Your task to perform on an android device: see tabs open on other devices in the chrome app Image 0: 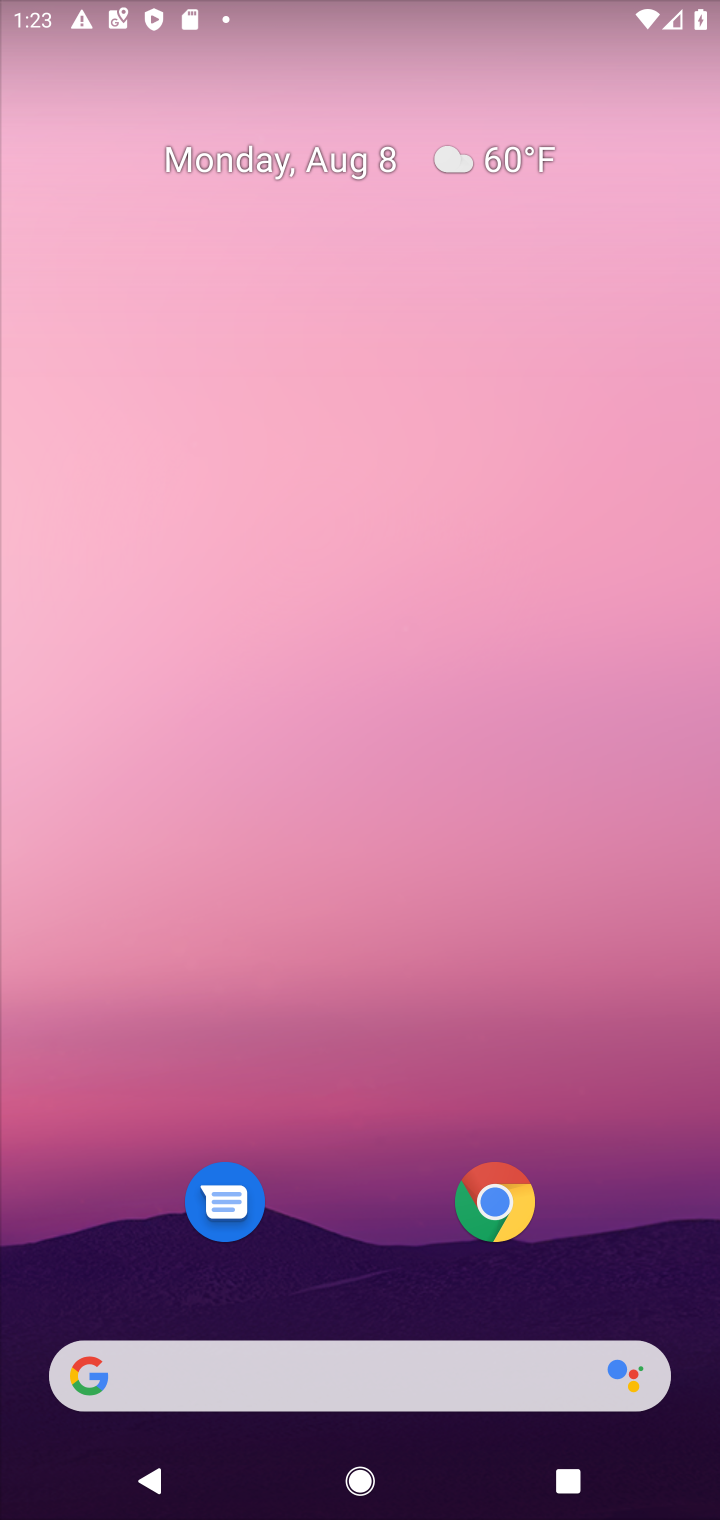
Step 0: press home button
Your task to perform on an android device: see tabs open on other devices in the chrome app Image 1: 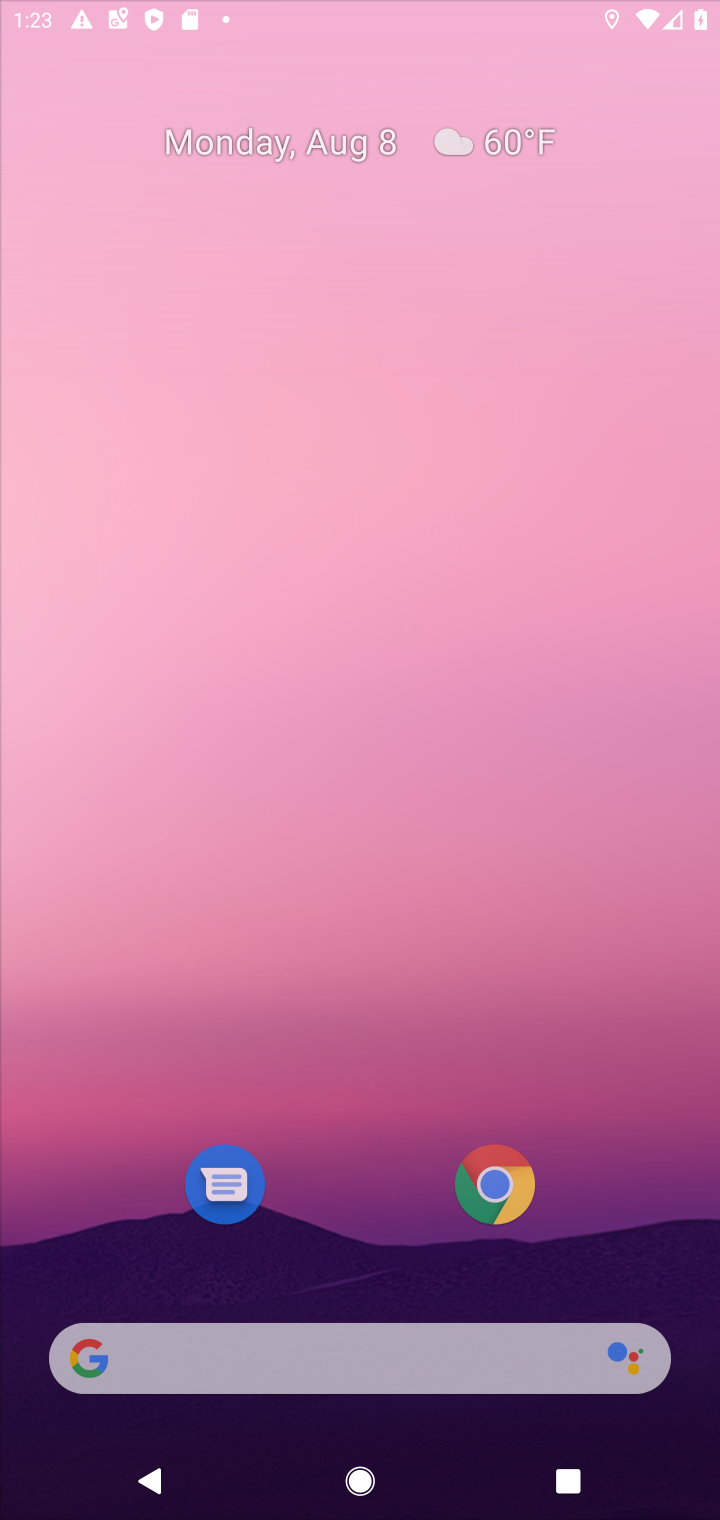
Step 1: press home button
Your task to perform on an android device: see tabs open on other devices in the chrome app Image 2: 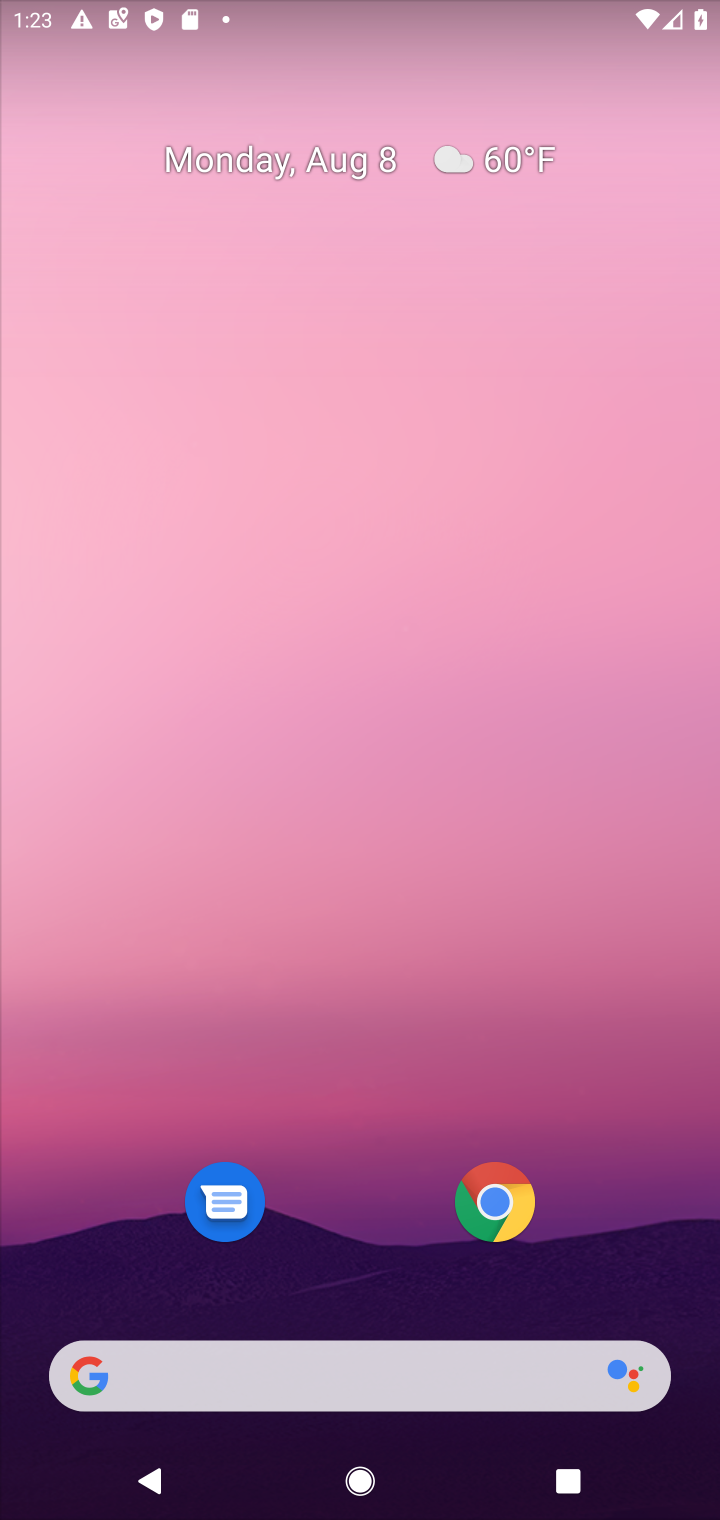
Step 2: drag from (618, 966) to (674, 266)
Your task to perform on an android device: see tabs open on other devices in the chrome app Image 3: 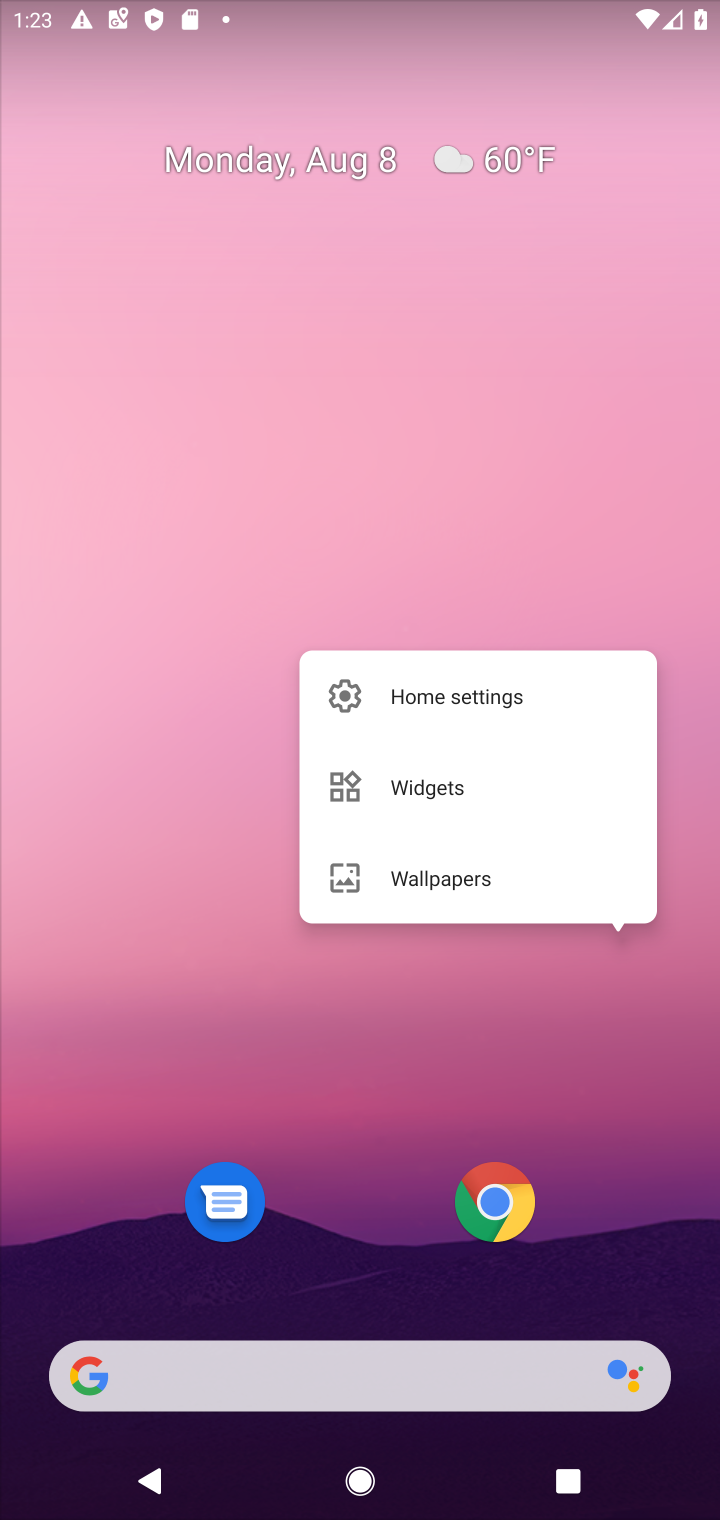
Step 3: click (598, 1033)
Your task to perform on an android device: see tabs open on other devices in the chrome app Image 4: 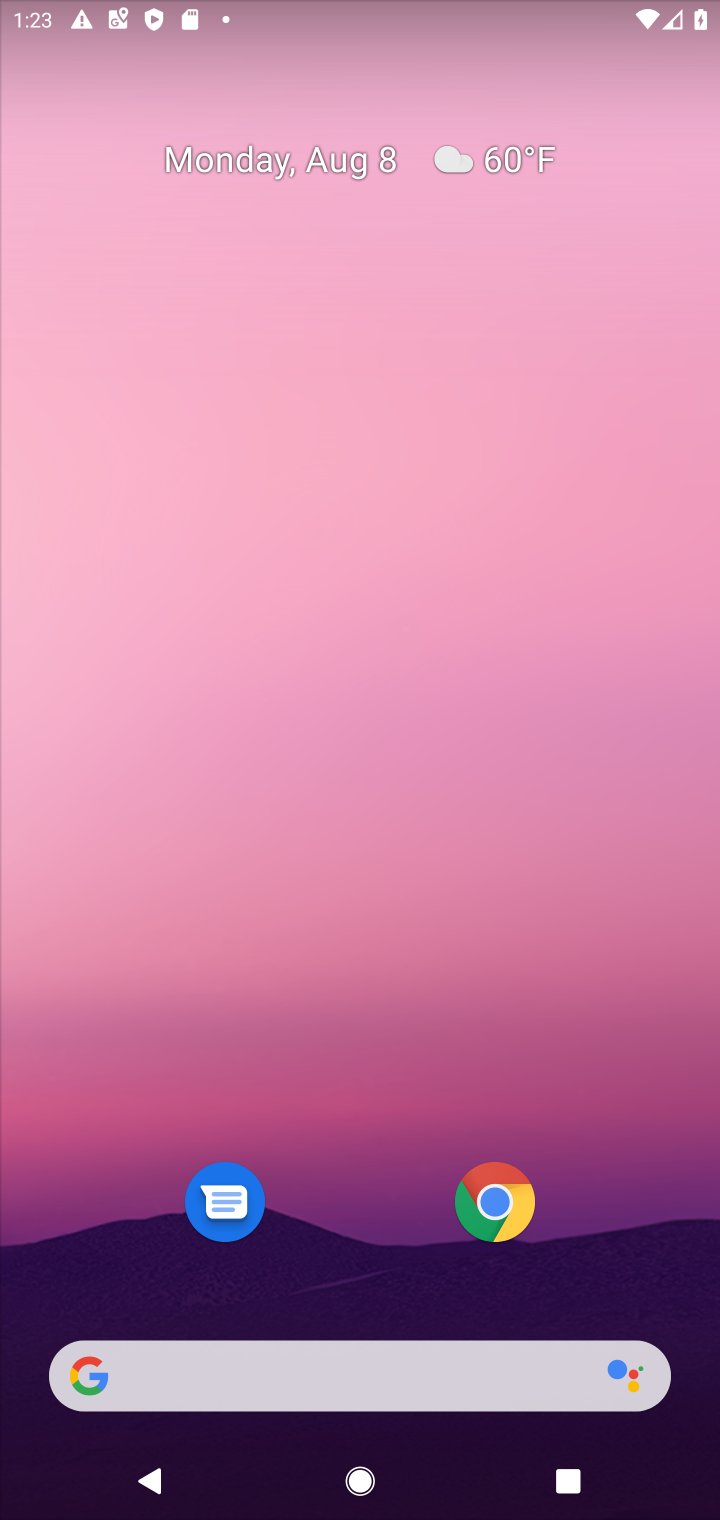
Step 4: drag from (595, 1253) to (633, 135)
Your task to perform on an android device: see tabs open on other devices in the chrome app Image 5: 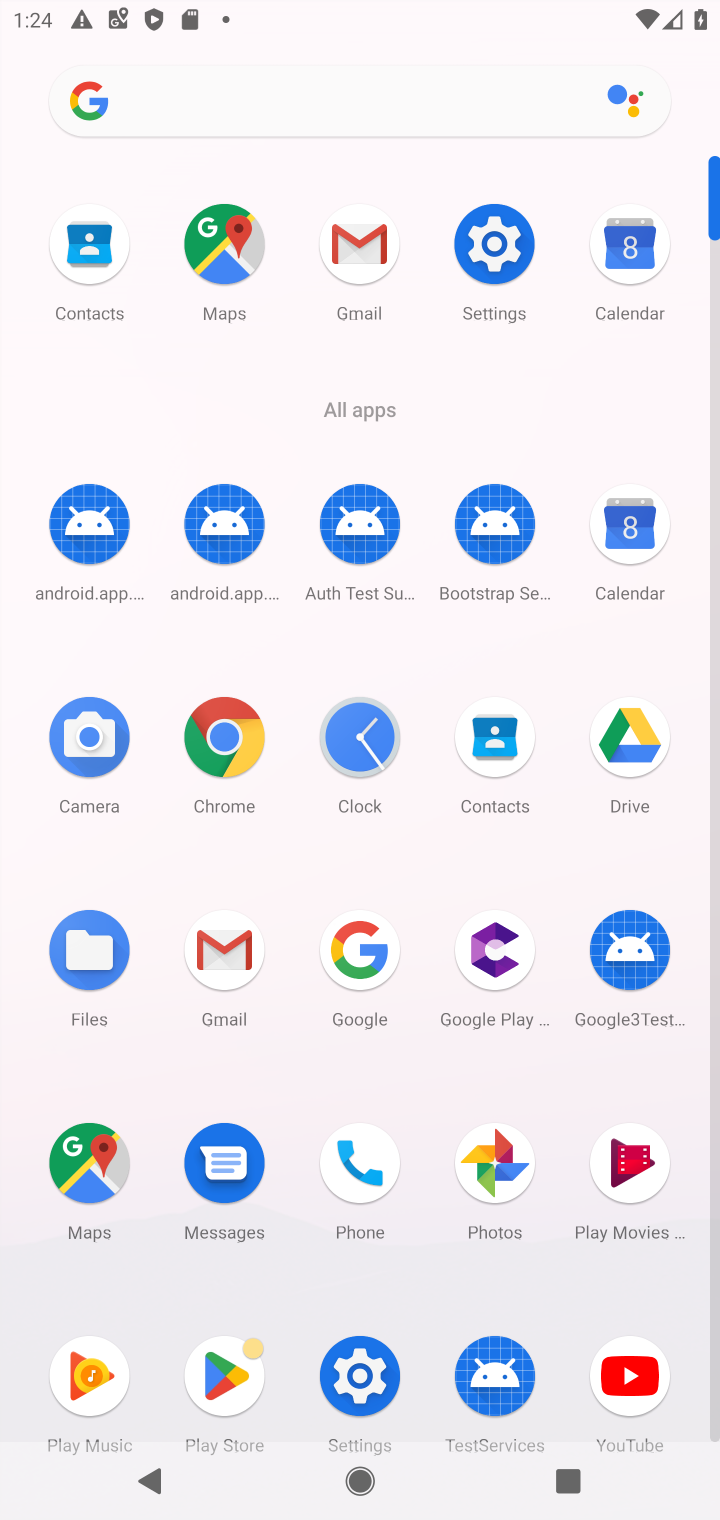
Step 5: click (219, 751)
Your task to perform on an android device: see tabs open on other devices in the chrome app Image 6: 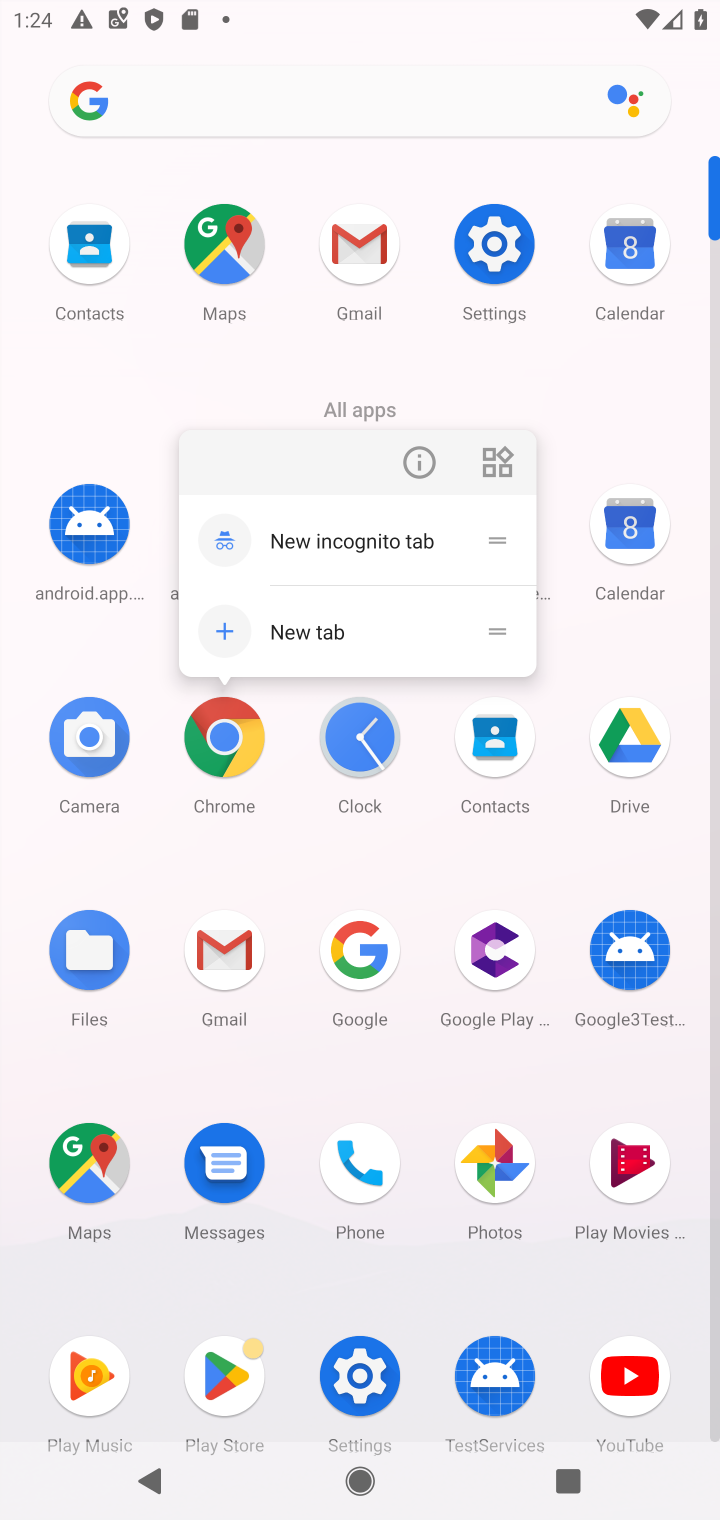
Step 6: click (219, 751)
Your task to perform on an android device: see tabs open on other devices in the chrome app Image 7: 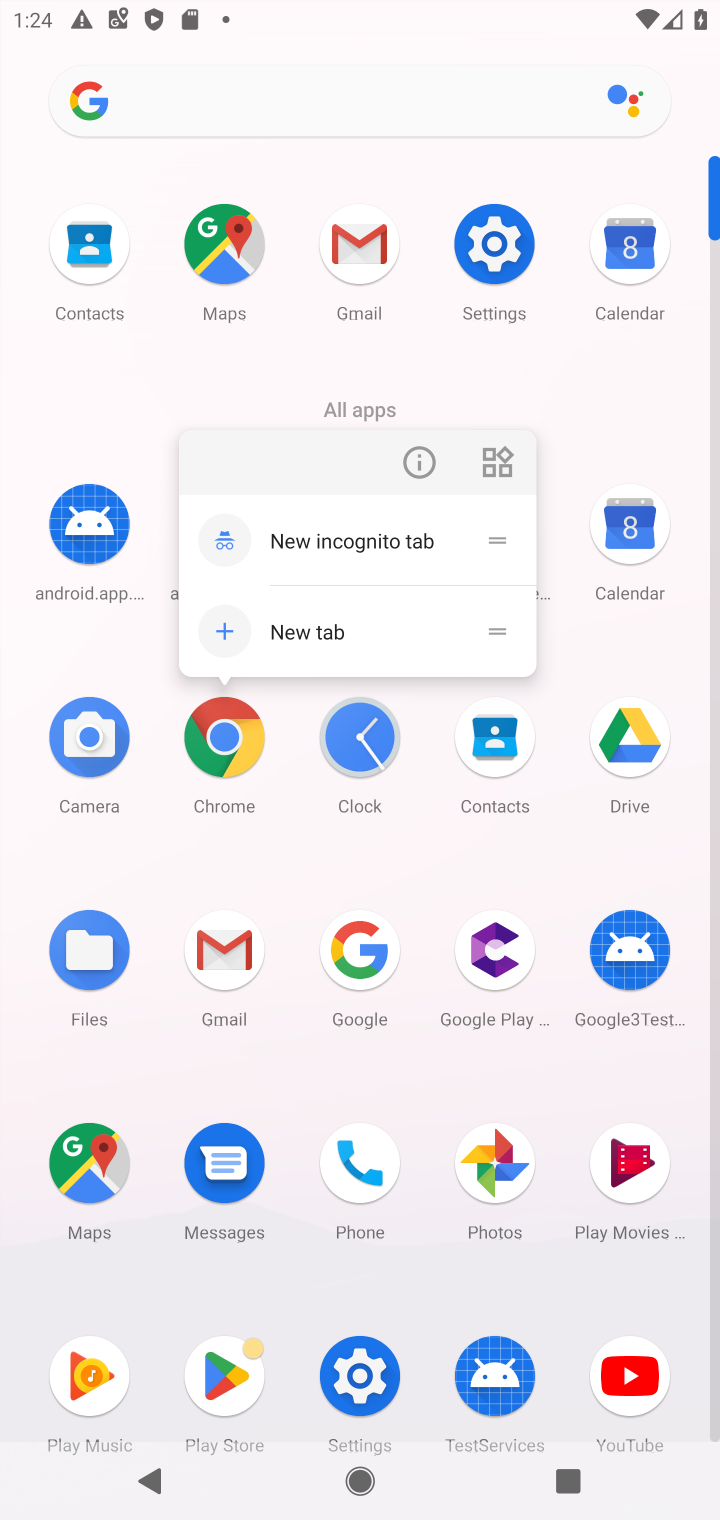
Step 7: click (224, 717)
Your task to perform on an android device: see tabs open on other devices in the chrome app Image 8: 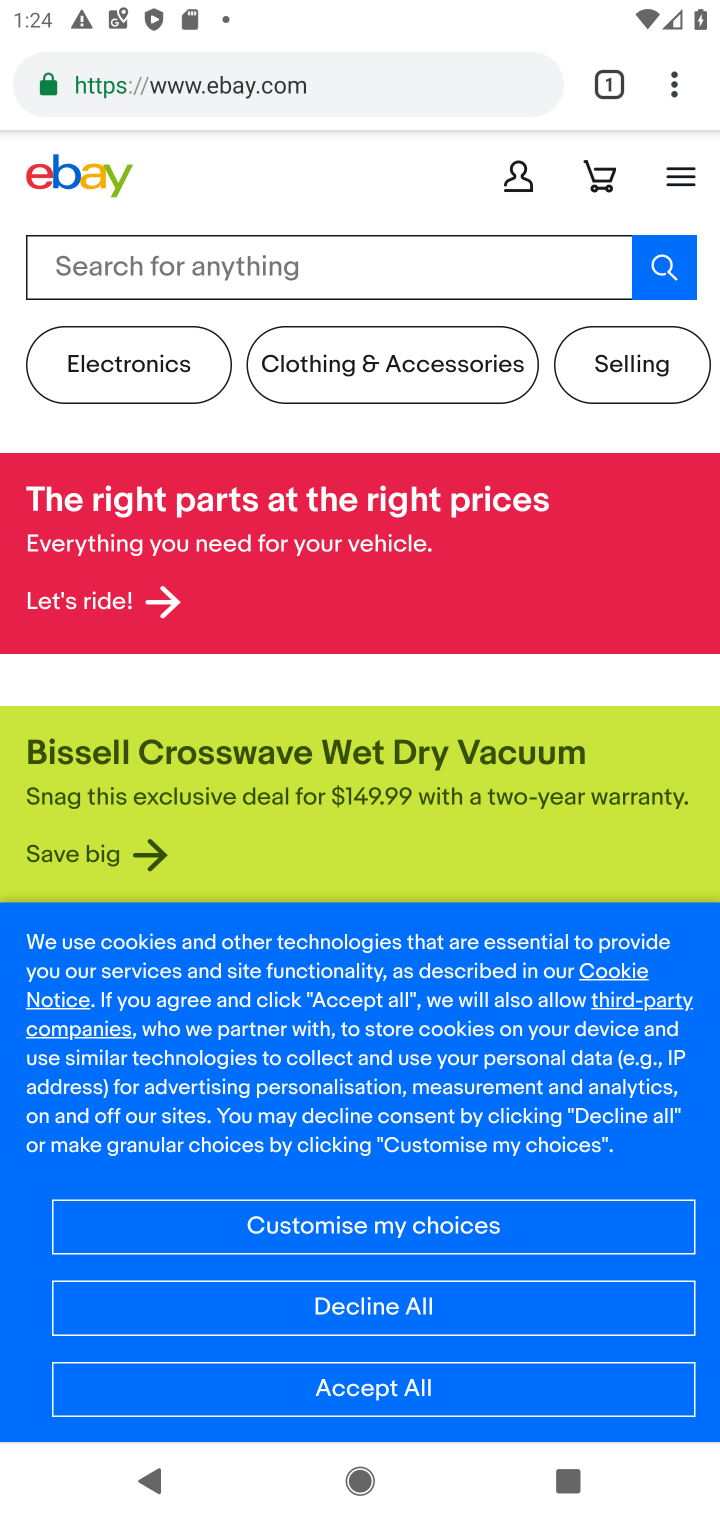
Step 8: click (677, 89)
Your task to perform on an android device: see tabs open on other devices in the chrome app Image 9: 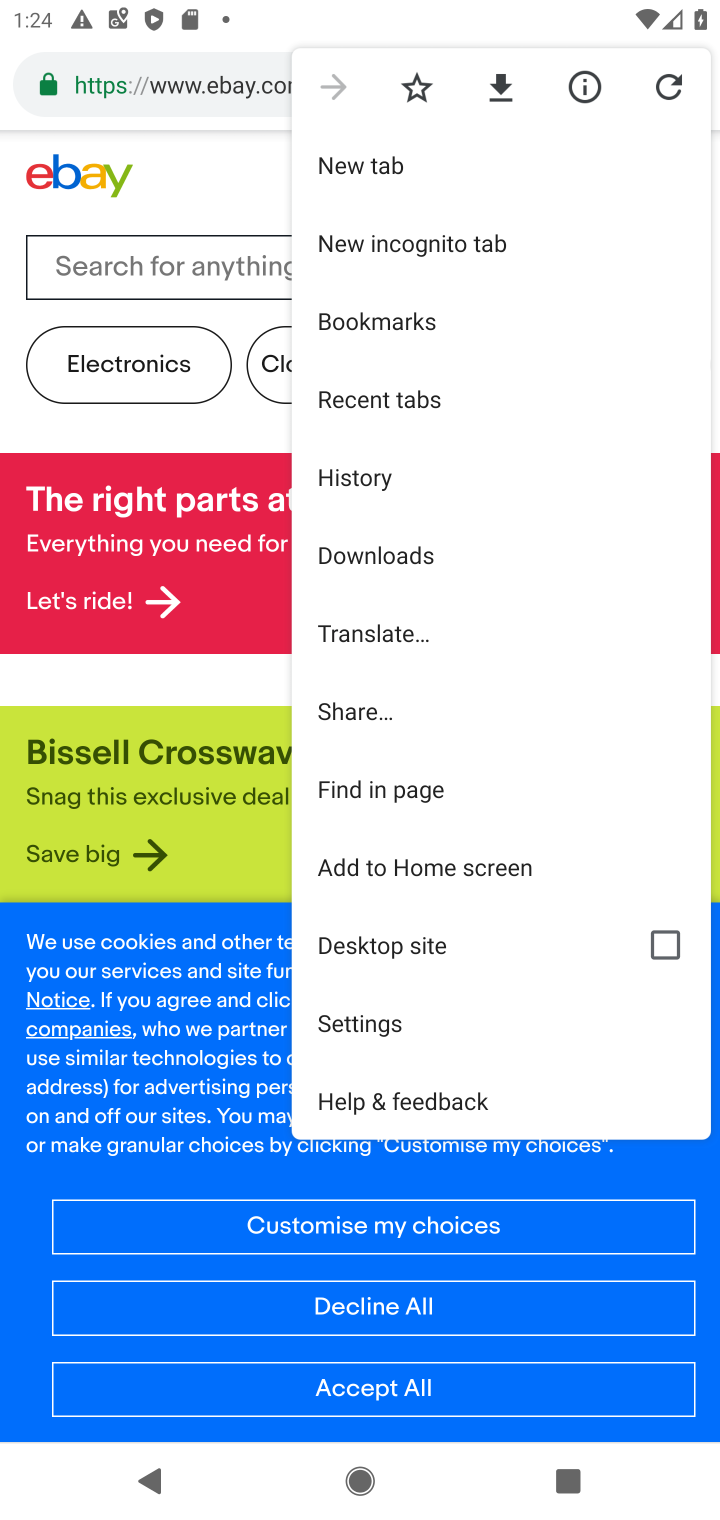
Step 9: click (417, 402)
Your task to perform on an android device: see tabs open on other devices in the chrome app Image 10: 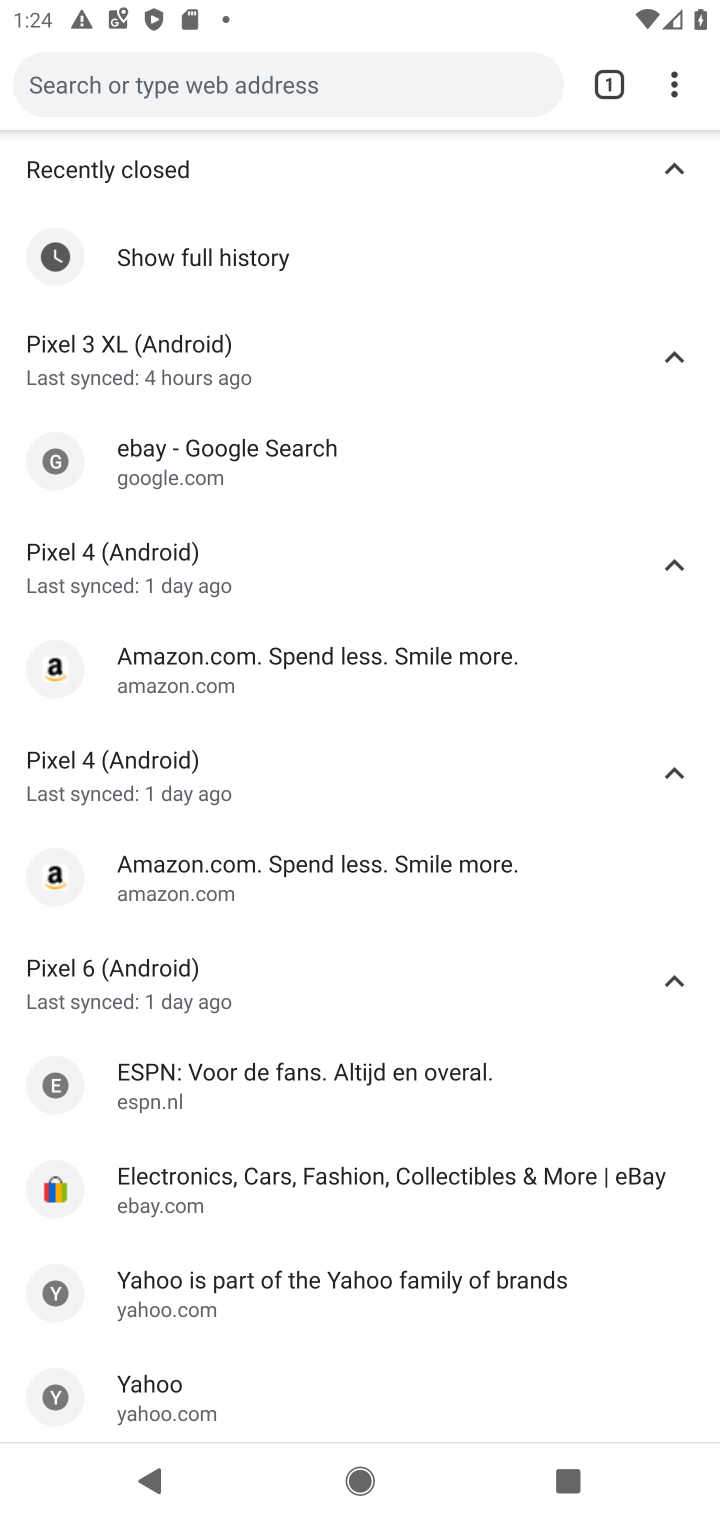
Step 10: click (608, 77)
Your task to perform on an android device: see tabs open on other devices in the chrome app Image 11: 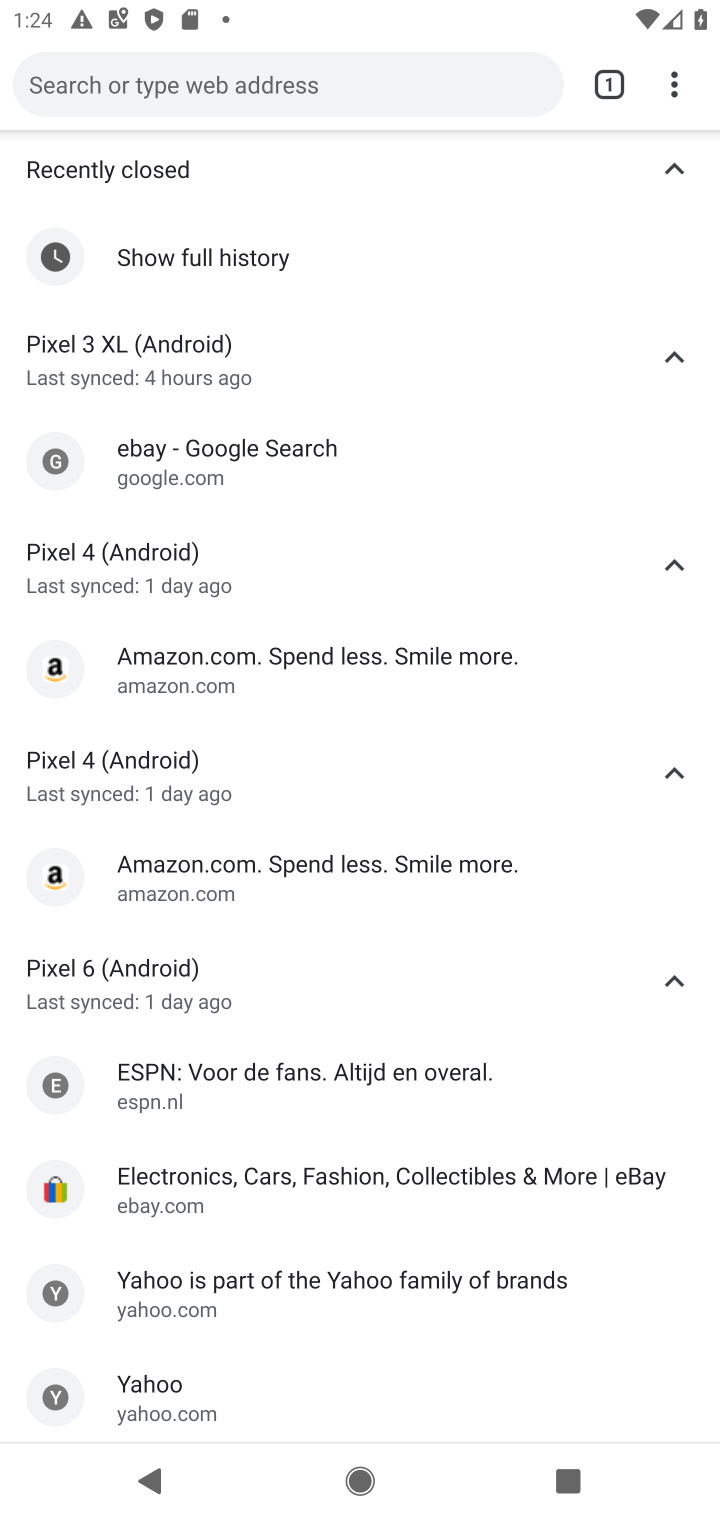
Step 11: click (609, 85)
Your task to perform on an android device: see tabs open on other devices in the chrome app Image 12: 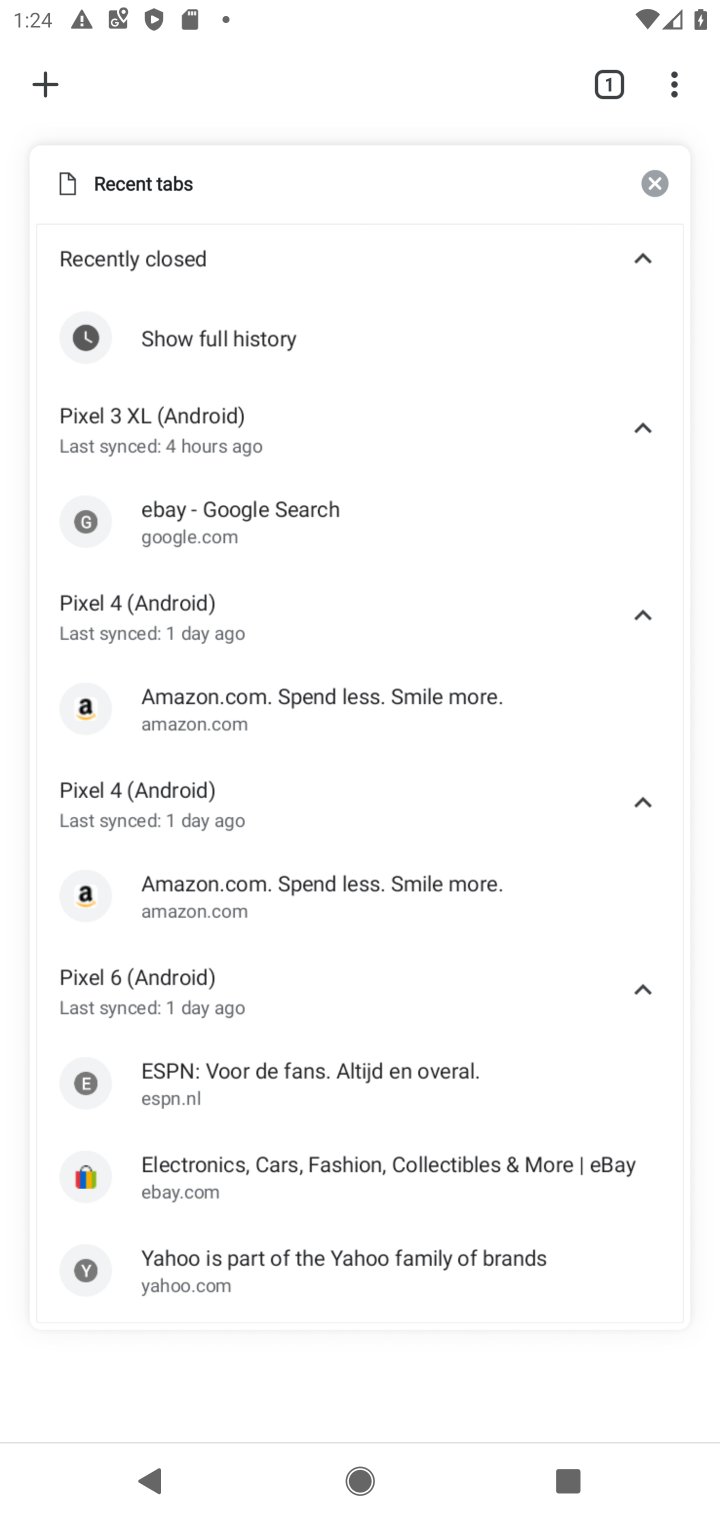
Step 12: task complete